Your task to perform on an android device: delete the emails in spam in the gmail app Image 0: 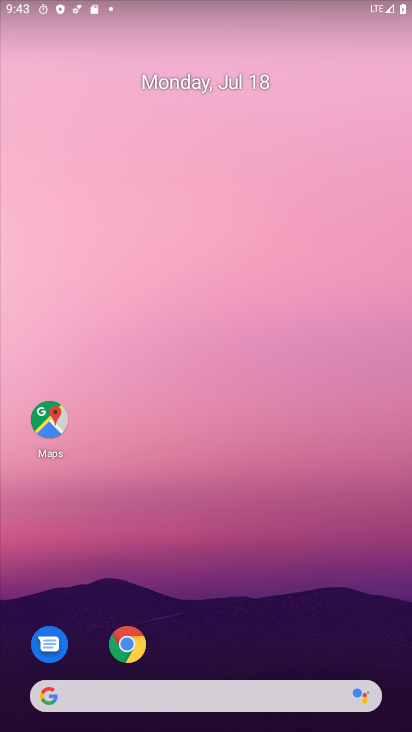
Step 0: press home button
Your task to perform on an android device: delete the emails in spam in the gmail app Image 1: 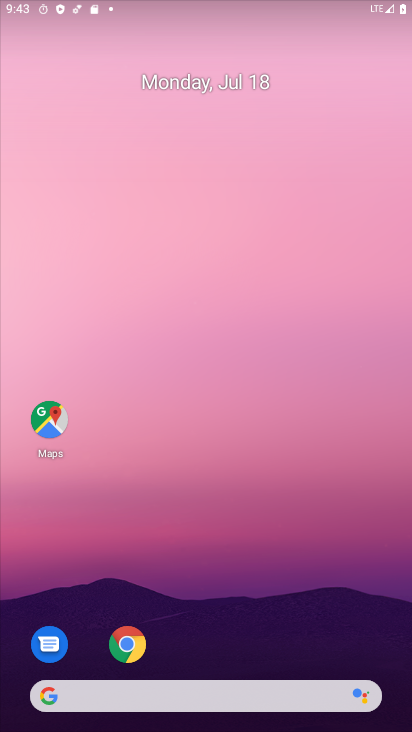
Step 1: drag from (207, 655) to (224, 12)
Your task to perform on an android device: delete the emails in spam in the gmail app Image 2: 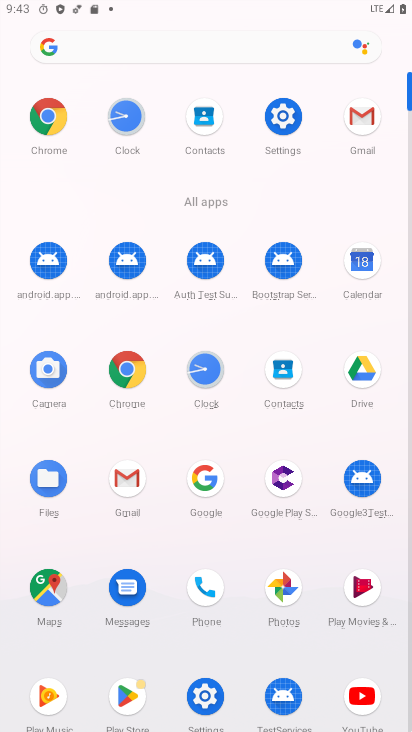
Step 2: click (124, 478)
Your task to perform on an android device: delete the emails in spam in the gmail app Image 3: 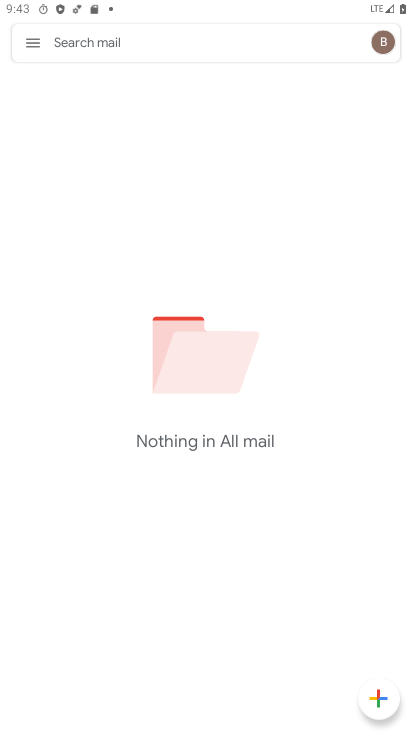
Step 3: click (24, 41)
Your task to perform on an android device: delete the emails in spam in the gmail app Image 4: 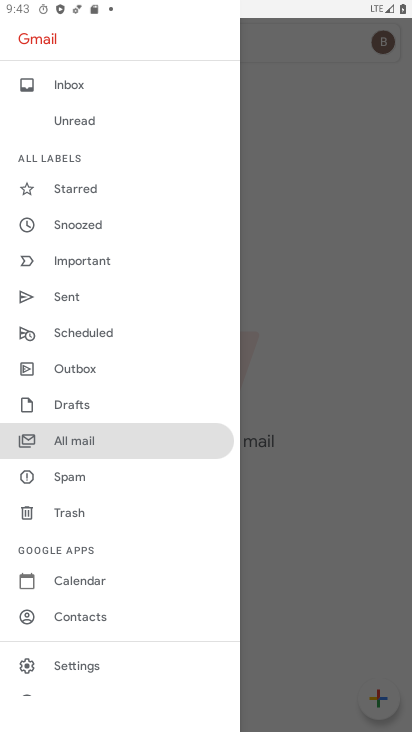
Step 4: click (83, 471)
Your task to perform on an android device: delete the emails in spam in the gmail app Image 5: 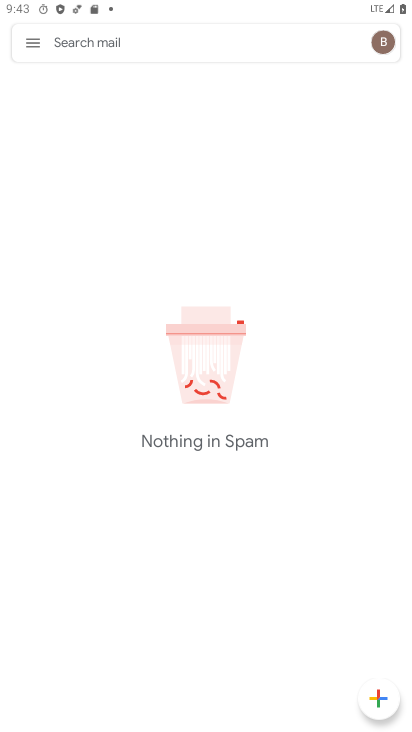
Step 5: task complete